Your task to perform on an android device: turn off improve location accuracy Image 0: 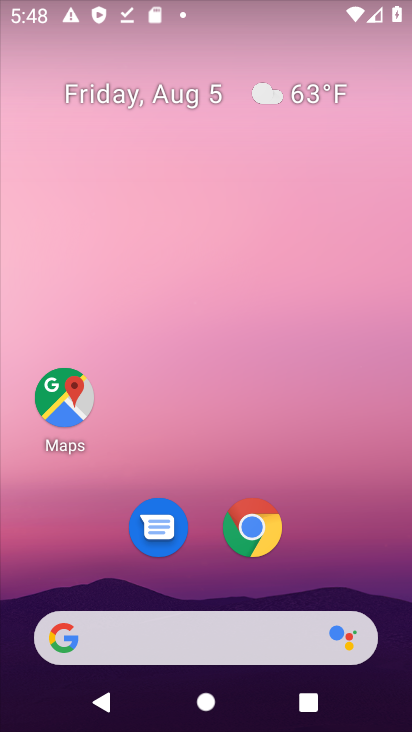
Step 0: drag from (211, 432) to (268, 47)
Your task to perform on an android device: turn off improve location accuracy Image 1: 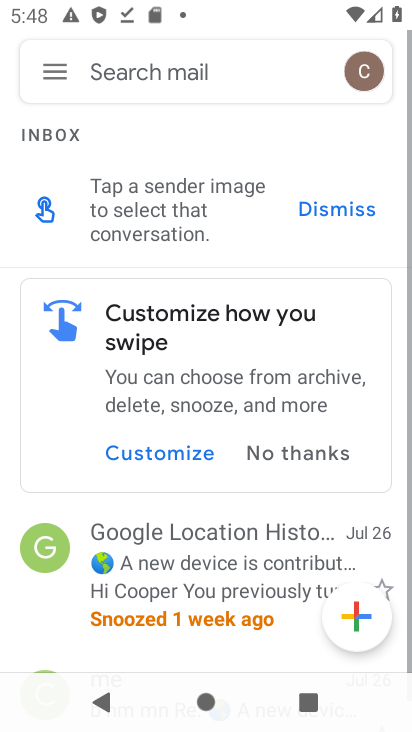
Step 1: drag from (206, 439) to (226, 58)
Your task to perform on an android device: turn off improve location accuracy Image 2: 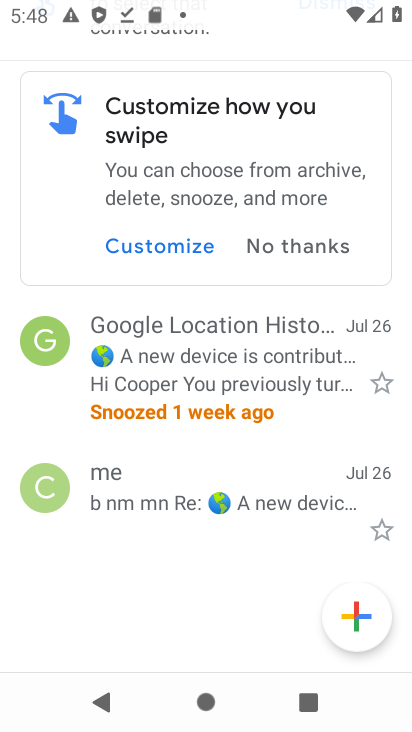
Step 2: drag from (186, 586) to (239, 303)
Your task to perform on an android device: turn off improve location accuracy Image 3: 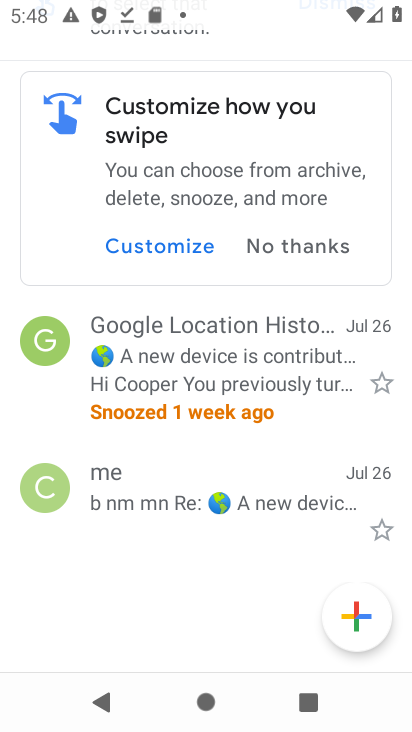
Step 3: drag from (231, 215) to (274, 725)
Your task to perform on an android device: turn off improve location accuracy Image 4: 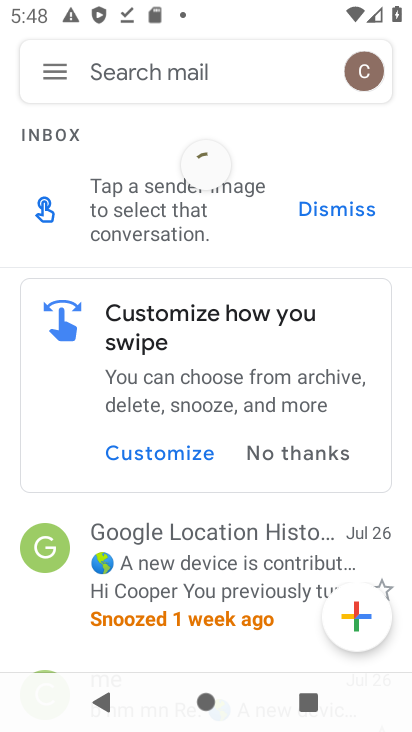
Step 4: drag from (239, 519) to (268, 344)
Your task to perform on an android device: turn off improve location accuracy Image 5: 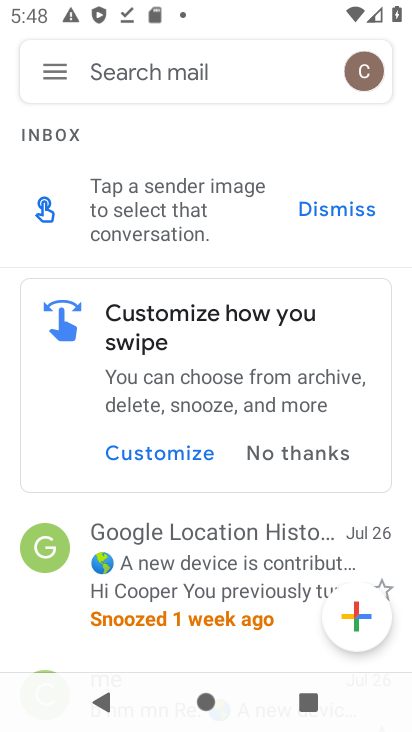
Step 5: drag from (218, 540) to (230, 314)
Your task to perform on an android device: turn off improve location accuracy Image 6: 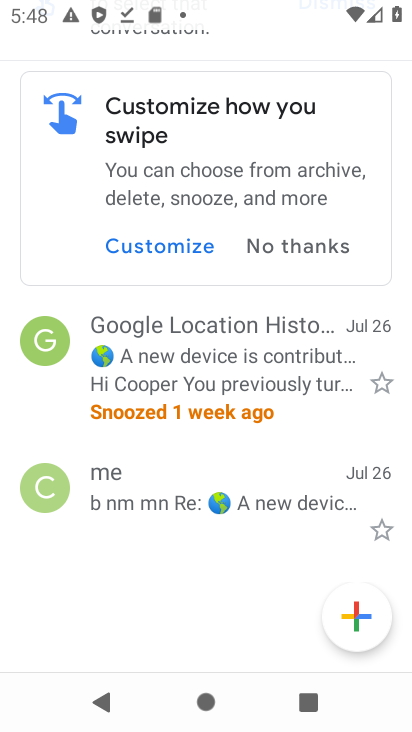
Step 6: drag from (40, 144) to (132, 567)
Your task to perform on an android device: turn off improve location accuracy Image 7: 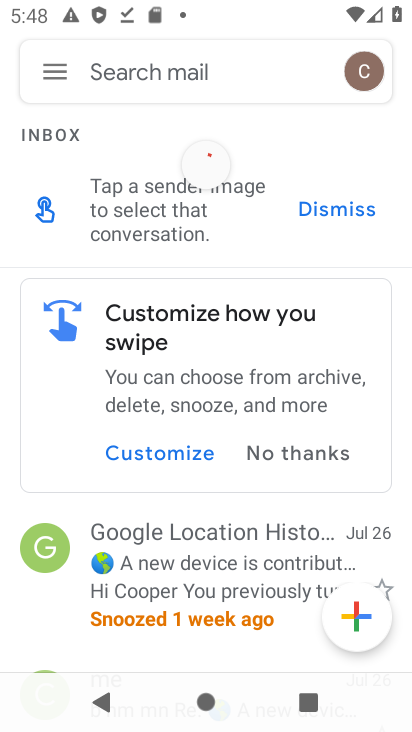
Step 7: click (46, 65)
Your task to perform on an android device: turn off improve location accuracy Image 8: 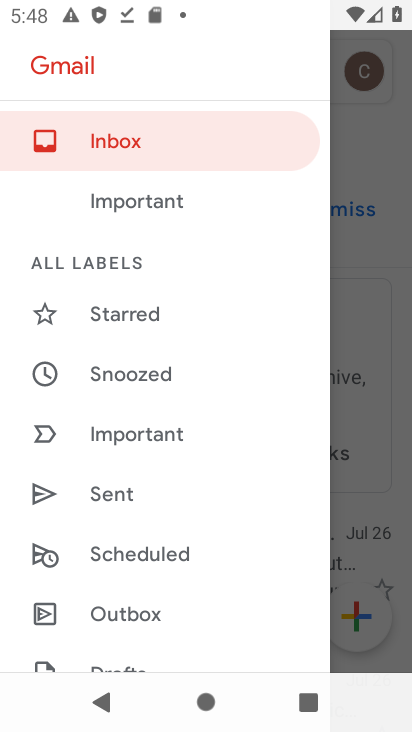
Step 8: press home button
Your task to perform on an android device: turn off improve location accuracy Image 9: 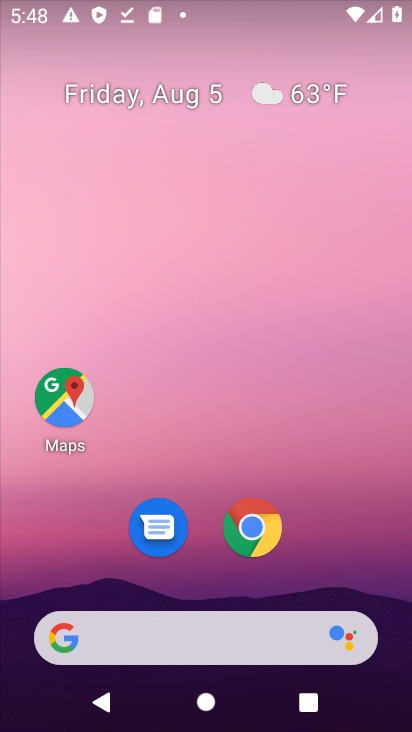
Step 9: drag from (199, 556) to (307, 116)
Your task to perform on an android device: turn off improve location accuracy Image 10: 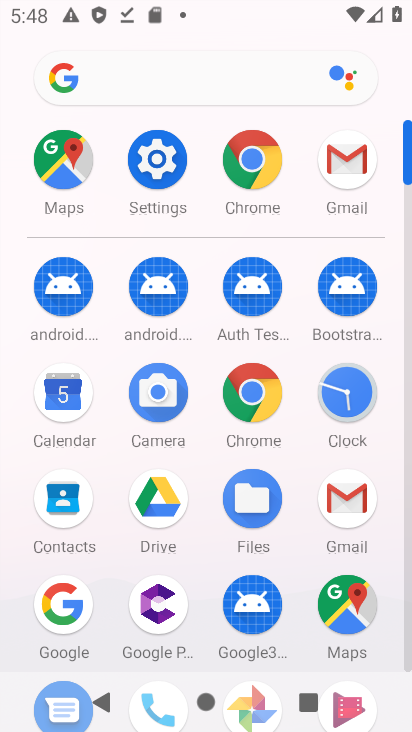
Step 10: click (146, 179)
Your task to perform on an android device: turn off improve location accuracy Image 11: 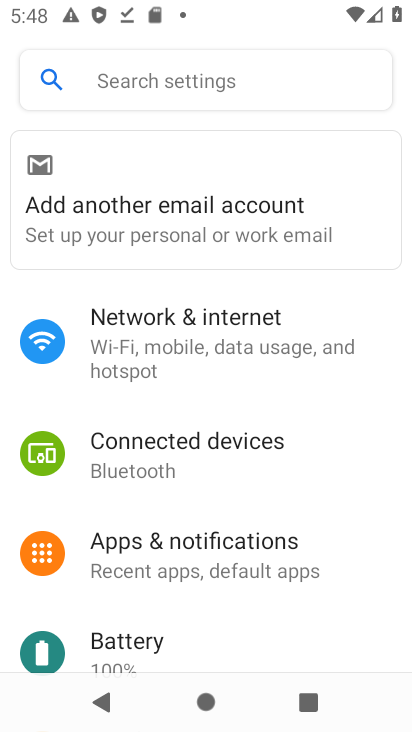
Step 11: drag from (185, 582) to (196, 185)
Your task to perform on an android device: turn off improve location accuracy Image 12: 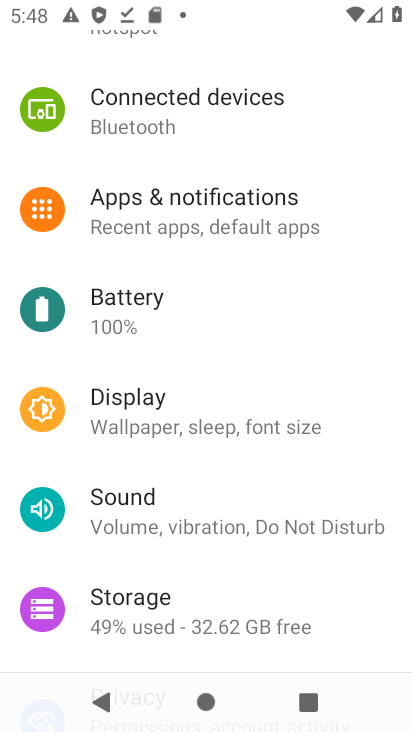
Step 12: drag from (148, 594) to (215, 243)
Your task to perform on an android device: turn off improve location accuracy Image 13: 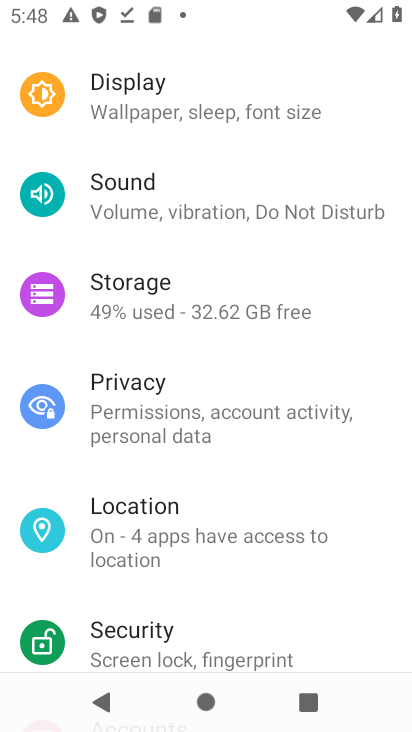
Step 13: click (132, 501)
Your task to perform on an android device: turn off improve location accuracy Image 14: 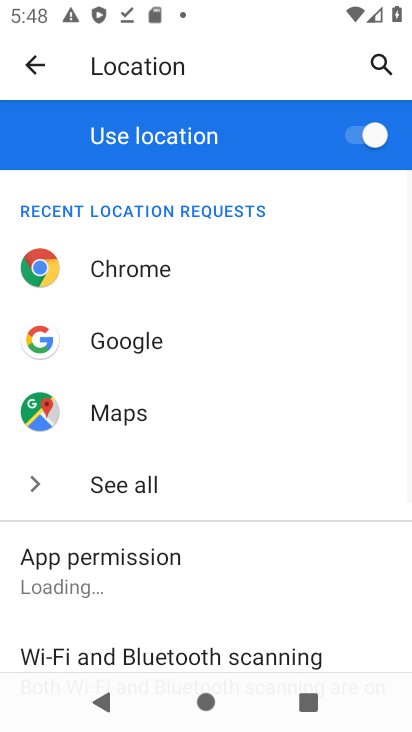
Step 14: drag from (225, 581) to (249, 245)
Your task to perform on an android device: turn off improve location accuracy Image 15: 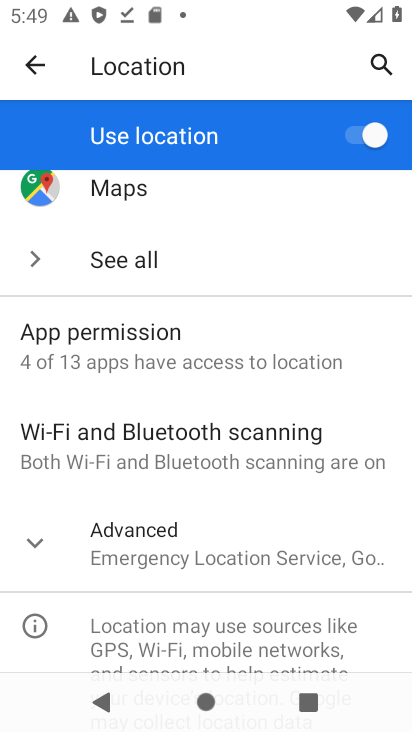
Step 15: click (221, 542)
Your task to perform on an android device: turn off improve location accuracy Image 16: 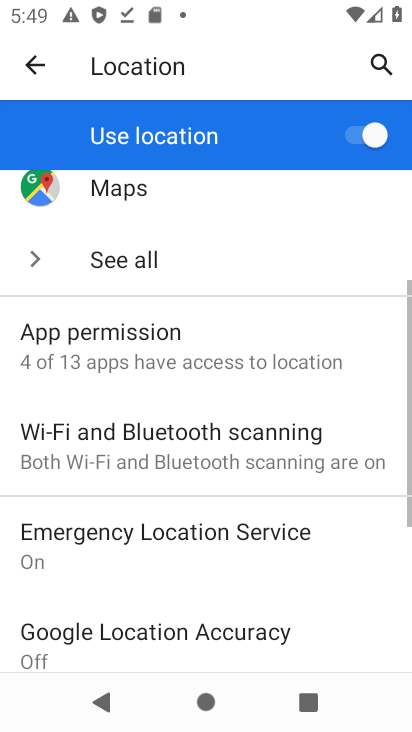
Step 16: drag from (221, 532) to (276, 190)
Your task to perform on an android device: turn off improve location accuracy Image 17: 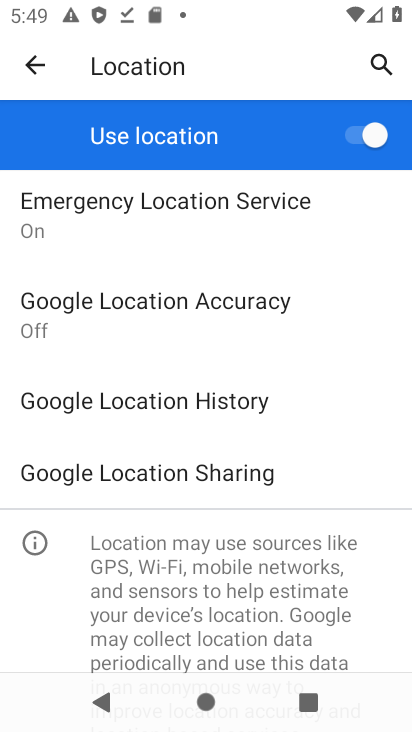
Step 17: click (225, 321)
Your task to perform on an android device: turn off improve location accuracy Image 18: 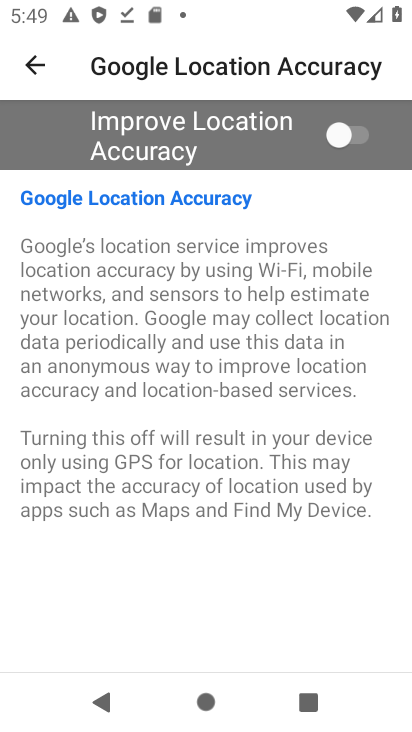
Step 18: task complete